Your task to perform on an android device: turn on showing notifications on the lock screen Image 0: 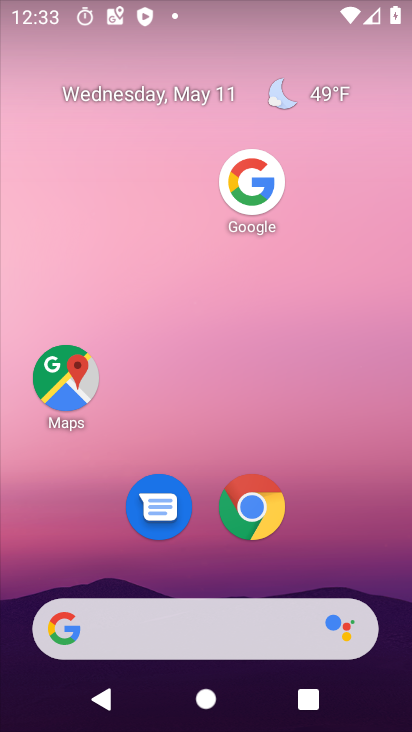
Step 0: drag from (214, 563) to (154, 95)
Your task to perform on an android device: turn on showing notifications on the lock screen Image 1: 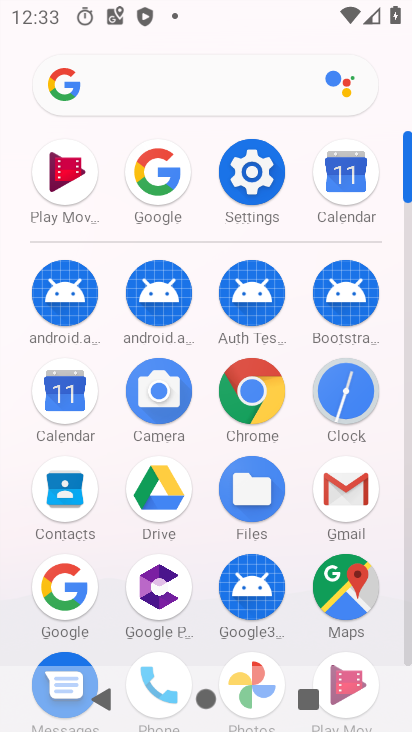
Step 1: click (272, 158)
Your task to perform on an android device: turn on showing notifications on the lock screen Image 2: 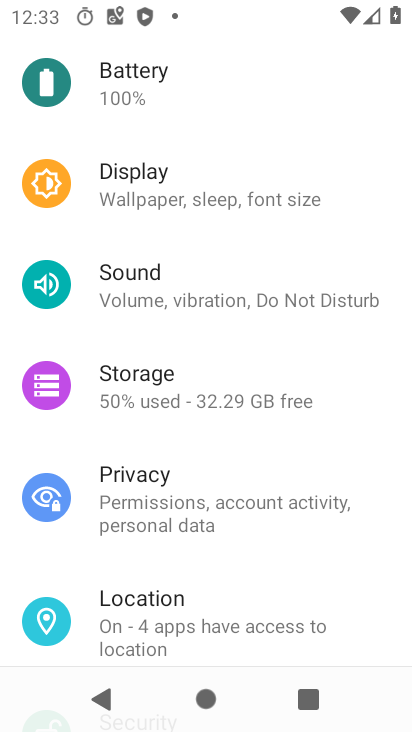
Step 2: drag from (166, 194) to (209, 552)
Your task to perform on an android device: turn on showing notifications on the lock screen Image 3: 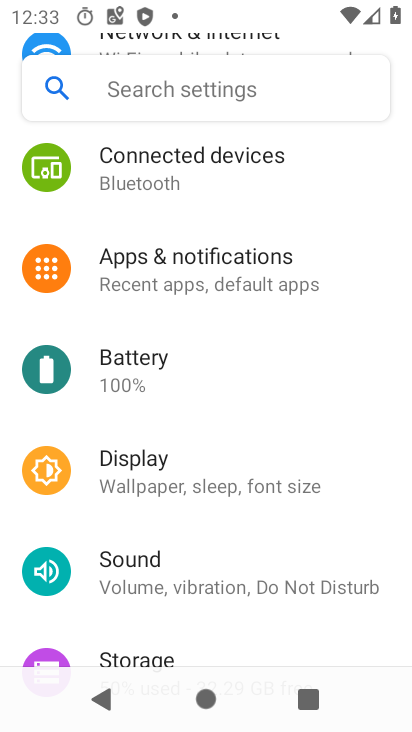
Step 3: click (195, 268)
Your task to perform on an android device: turn on showing notifications on the lock screen Image 4: 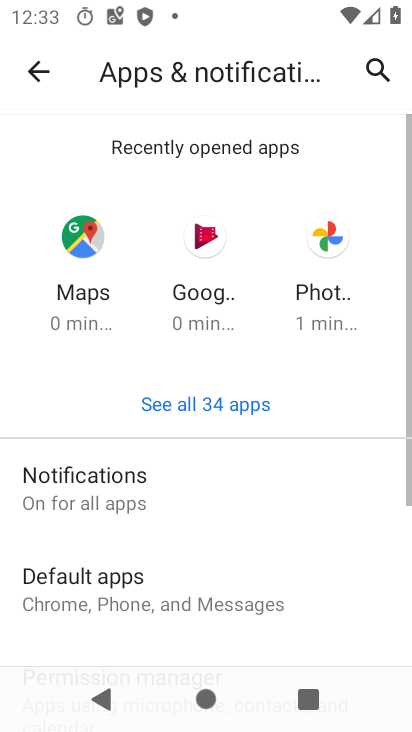
Step 4: click (139, 498)
Your task to perform on an android device: turn on showing notifications on the lock screen Image 5: 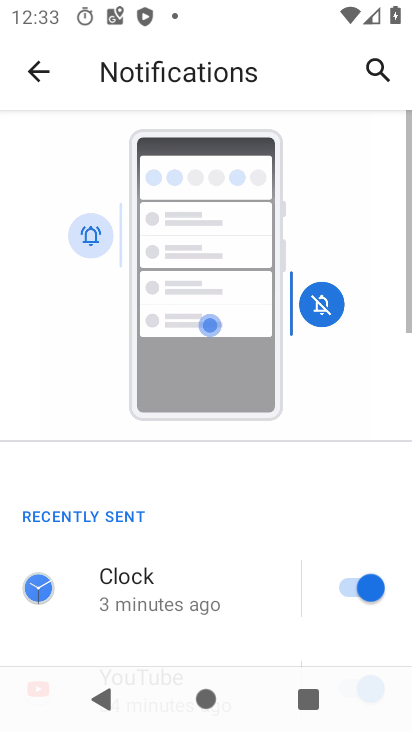
Step 5: drag from (232, 523) to (260, 29)
Your task to perform on an android device: turn on showing notifications on the lock screen Image 6: 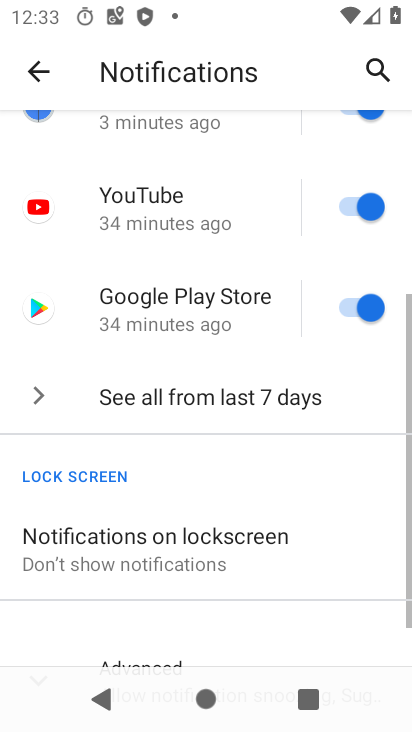
Step 6: click (182, 527)
Your task to perform on an android device: turn on showing notifications on the lock screen Image 7: 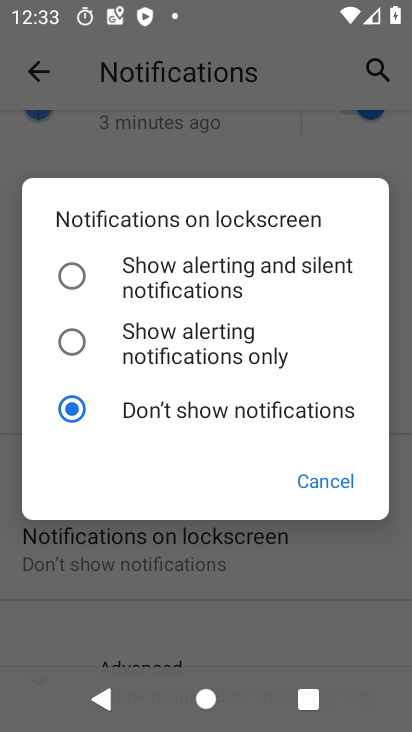
Step 7: click (81, 273)
Your task to perform on an android device: turn on showing notifications on the lock screen Image 8: 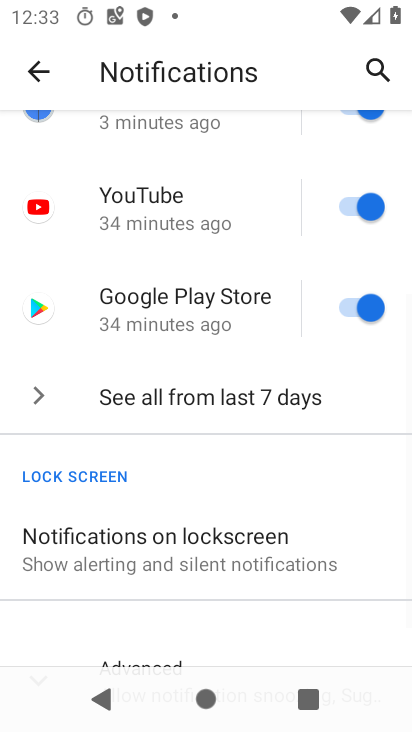
Step 8: task complete